Your task to perform on an android device: find snoozed emails in the gmail app Image 0: 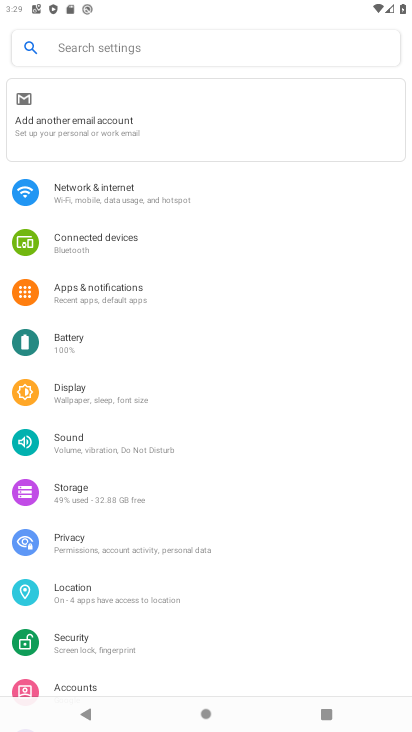
Step 0: press home button
Your task to perform on an android device: find snoozed emails in the gmail app Image 1: 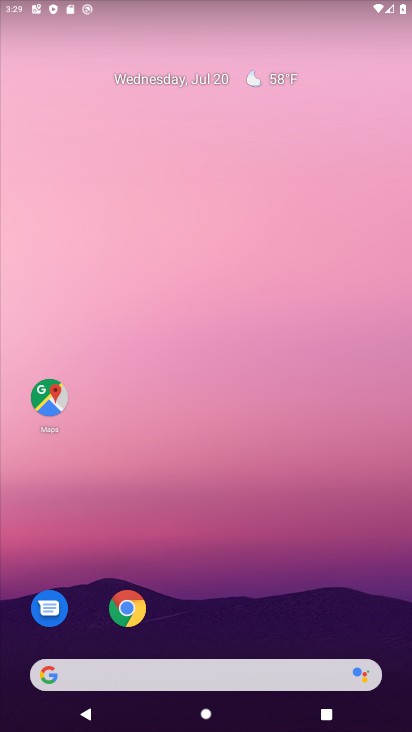
Step 1: drag from (299, 588) to (272, 179)
Your task to perform on an android device: find snoozed emails in the gmail app Image 2: 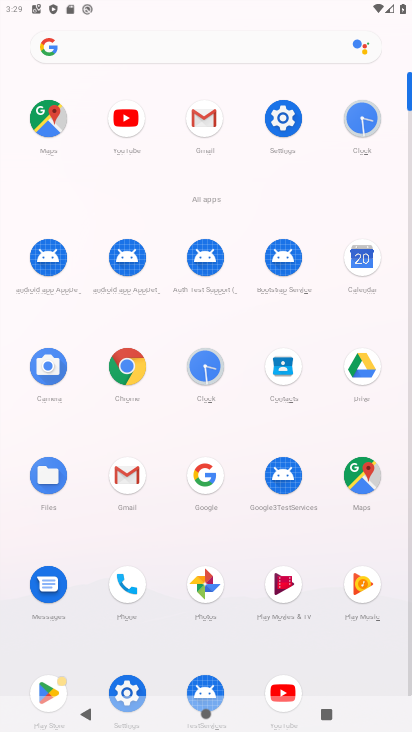
Step 2: click (214, 114)
Your task to perform on an android device: find snoozed emails in the gmail app Image 3: 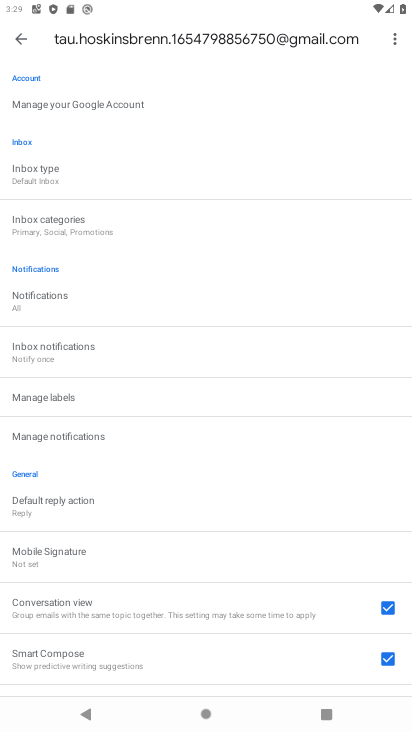
Step 3: task complete